Your task to perform on an android device: Open Google Chrome and click the shortcut for Amazon.com Image 0: 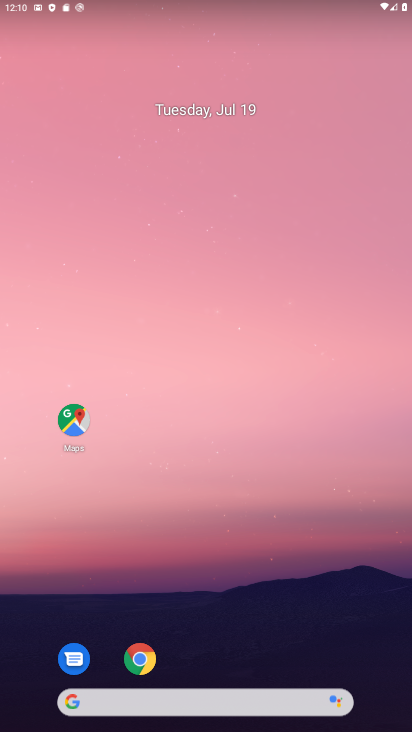
Step 0: click (145, 666)
Your task to perform on an android device: Open Google Chrome and click the shortcut for Amazon.com Image 1: 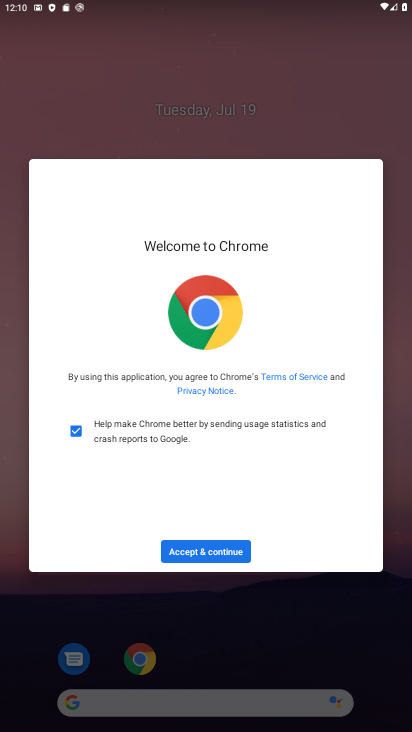
Step 1: click (171, 559)
Your task to perform on an android device: Open Google Chrome and click the shortcut for Amazon.com Image 2: 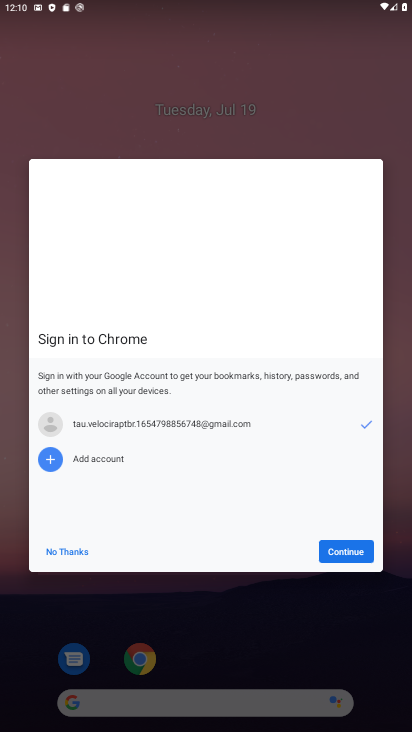
Step 2: click (329, 549)
Your task to perform on an android device: Open Google Chrome and click the shortcut for Amazon.com Image 3: 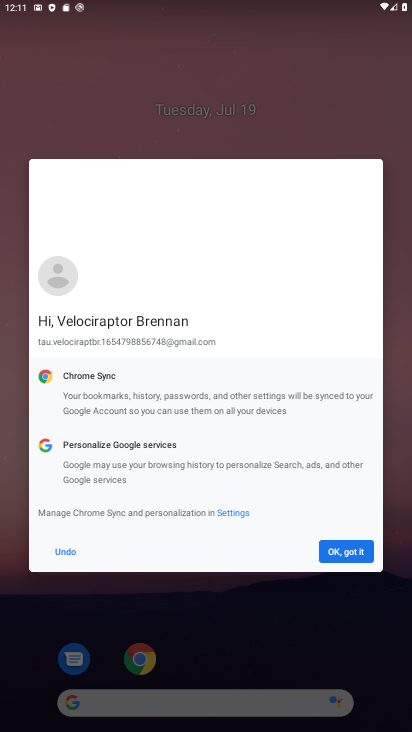
Step 3: click (361, 554)
Your task to perform on an android device: Open Google Chrome and click the shortcut for Amazon.com Image 4: 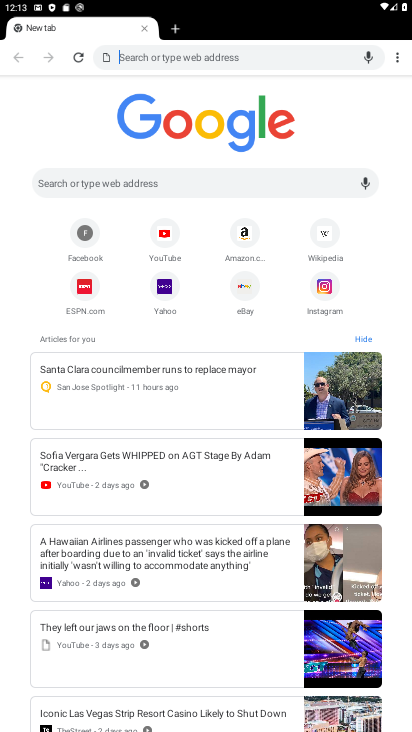
Step 4: click (242, 237)
Your task to perform on an android device: Open Google Chrome and click the shortcut for Amazon.com Image 5: 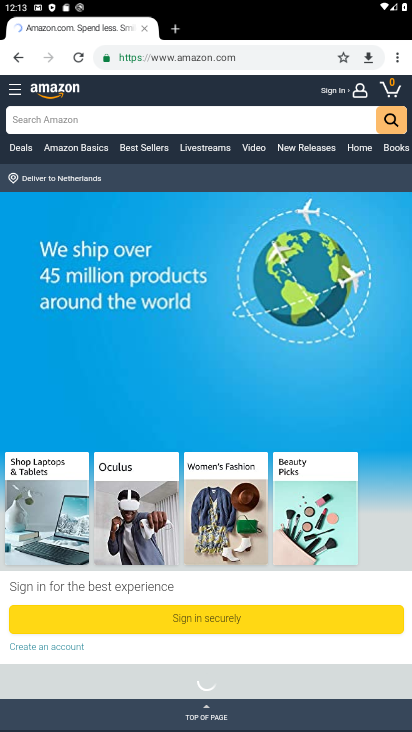
Step 5: task complete